Your task to perform on an android device: change notifications settings Image 0: 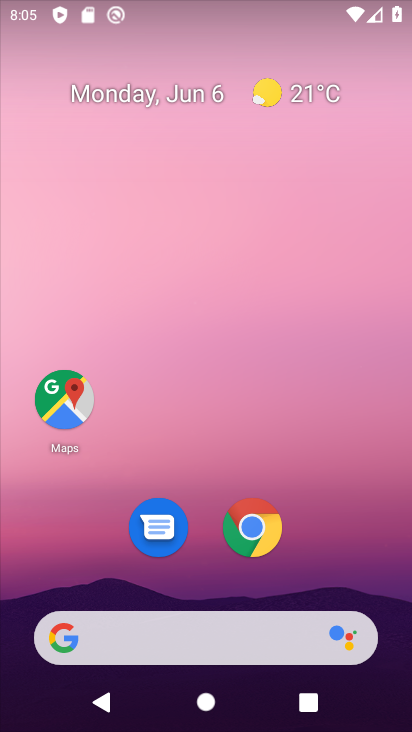
Step 0: drag from (334, 546) to (234, 71)
Your task to perform on an android device: change notifications settings Image 1: 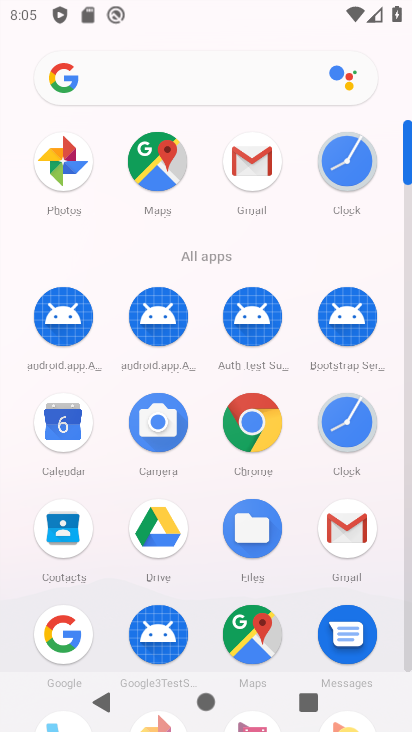
Step 1: drag from (301, 495) to (269, 130)
Your task to perform on an android device: change notifications settings Image 2: 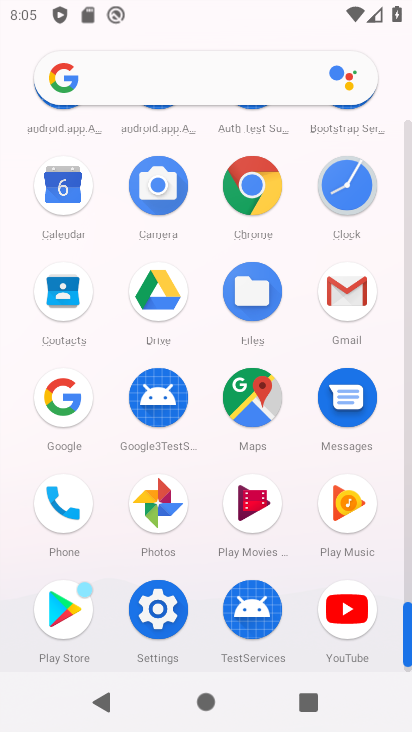
Step 2: click (156, 617)
Your task to perform on an android device: change notifications settings Image 3: 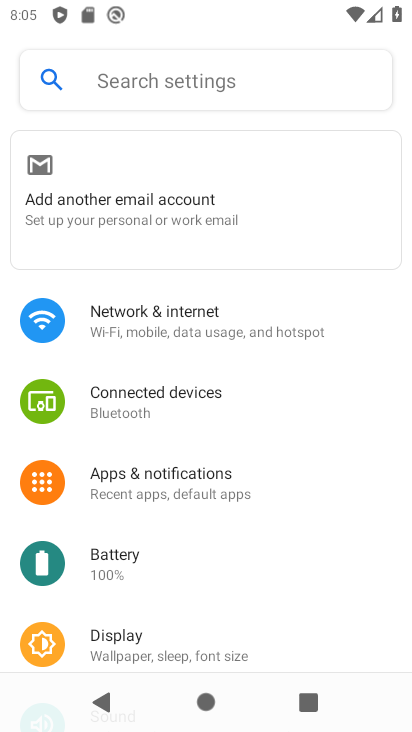
Step 3: click (179, 476)
Your task to perform on an android device: change notifications settings Image 4: 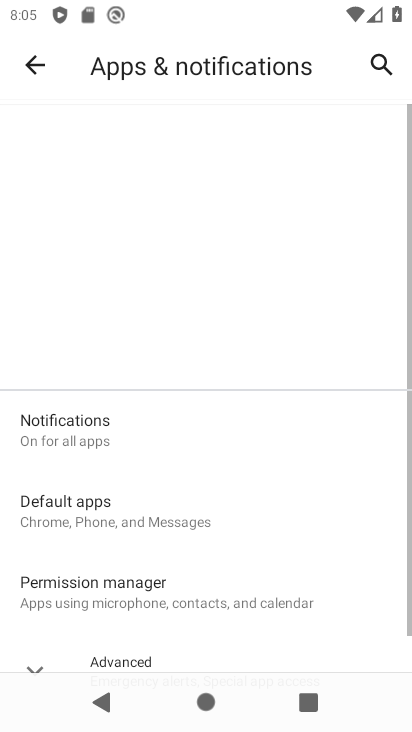
Step 4: click (108, 432)
Your task to perform on an android device: change notifications settings Image 5: 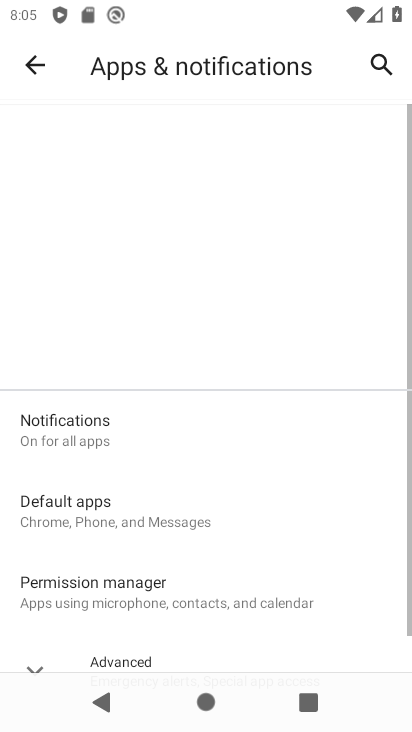
Step 5: drag from (268, 522) to (260, 95)
Your task to perform on an android device: change notifications settings Image 6: 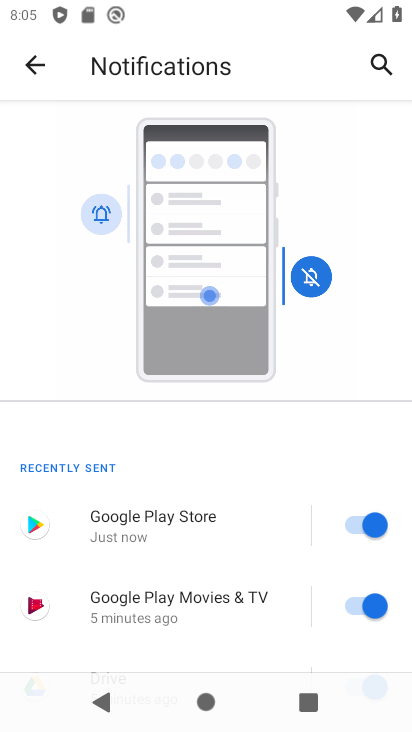
Step 6: drag from (351, 531) to (288, 149)
Your task to perform on an android device: change notifications settings Image 7: 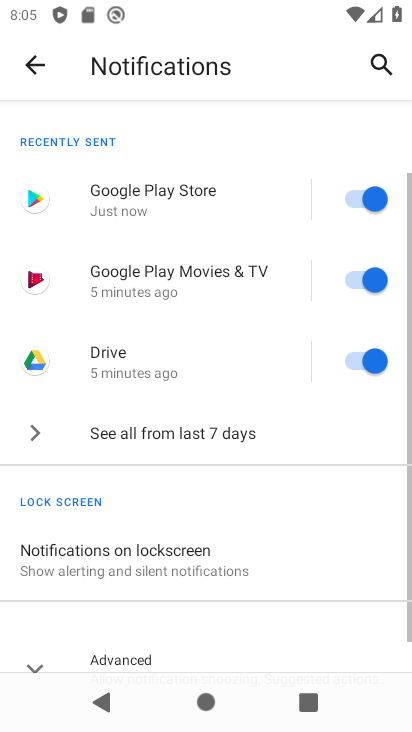
Step 7: drag from (251, 624) to (200, 229)
Your task to perform on an android device: change notifications settings Image 8: 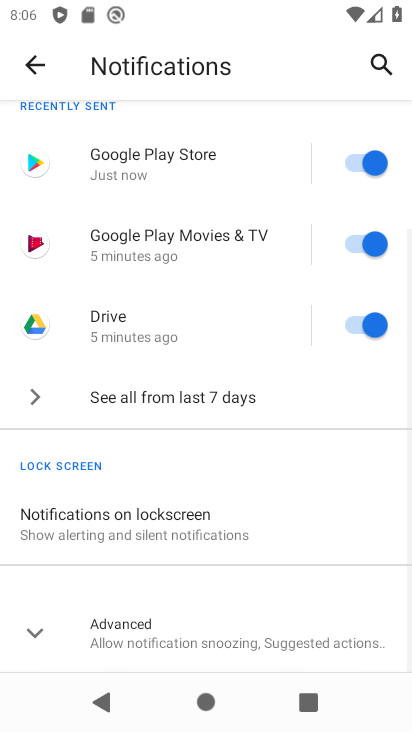
Step 8: click (139, 650)
Your task to perform on an android device: change notifications settings Image 9: 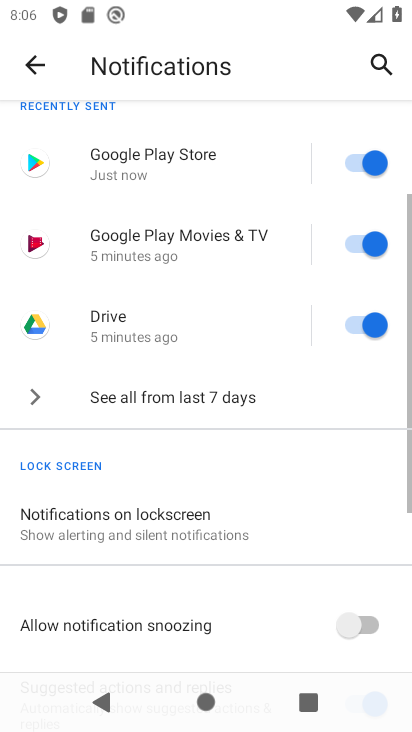
Step 9: drag from (273, 595) to (262, 198)
Your task to perform on an android device: change notifications settings Image 10: 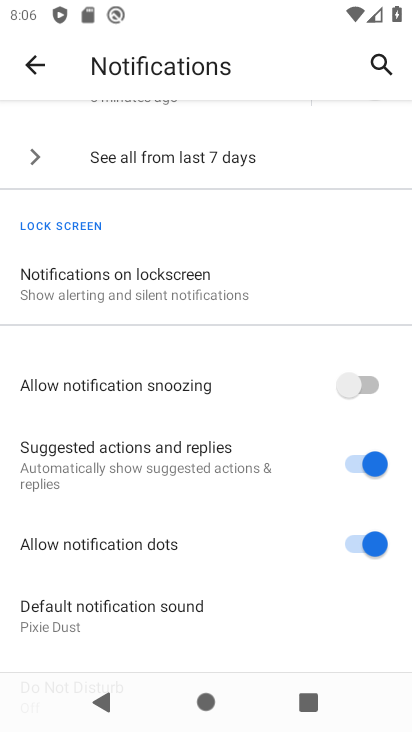
Step 10: click (347, 383)
Your task to perform on an android device: change notifications settings Image 11: 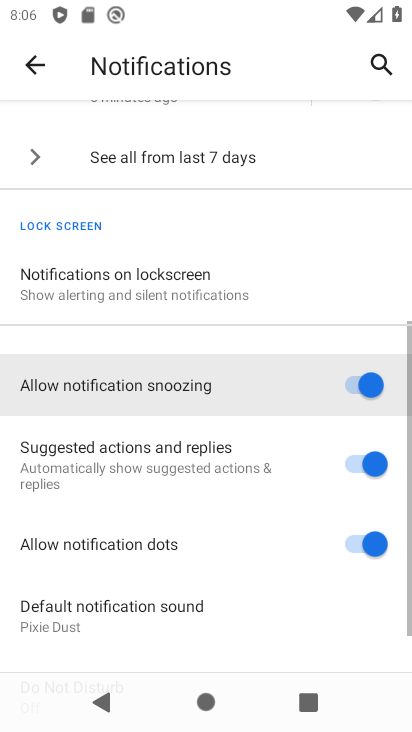
Step 11: click (367, 464)
Your task to perform on an android device: change notifications settings Image 12: 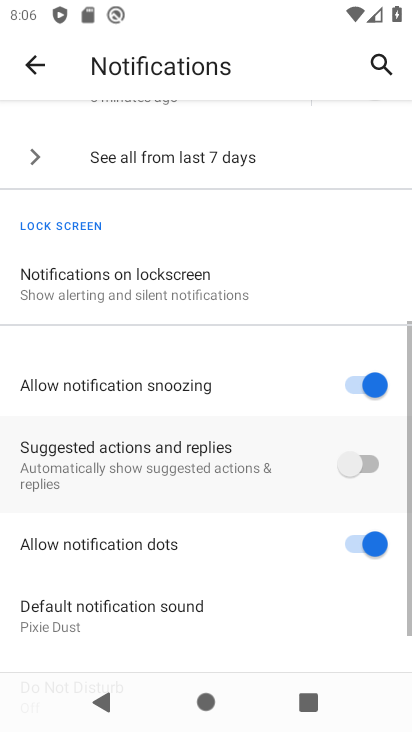
Step 12: click (352, 550)
Your task to perform on an android device: change notifications settings Image 13: 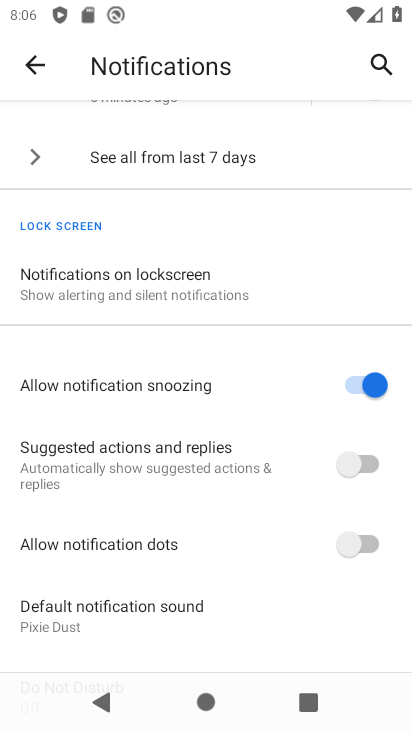
Step 13: task complete